Your task to perform on an android device: clear all cookies in the chrome app Image 0: 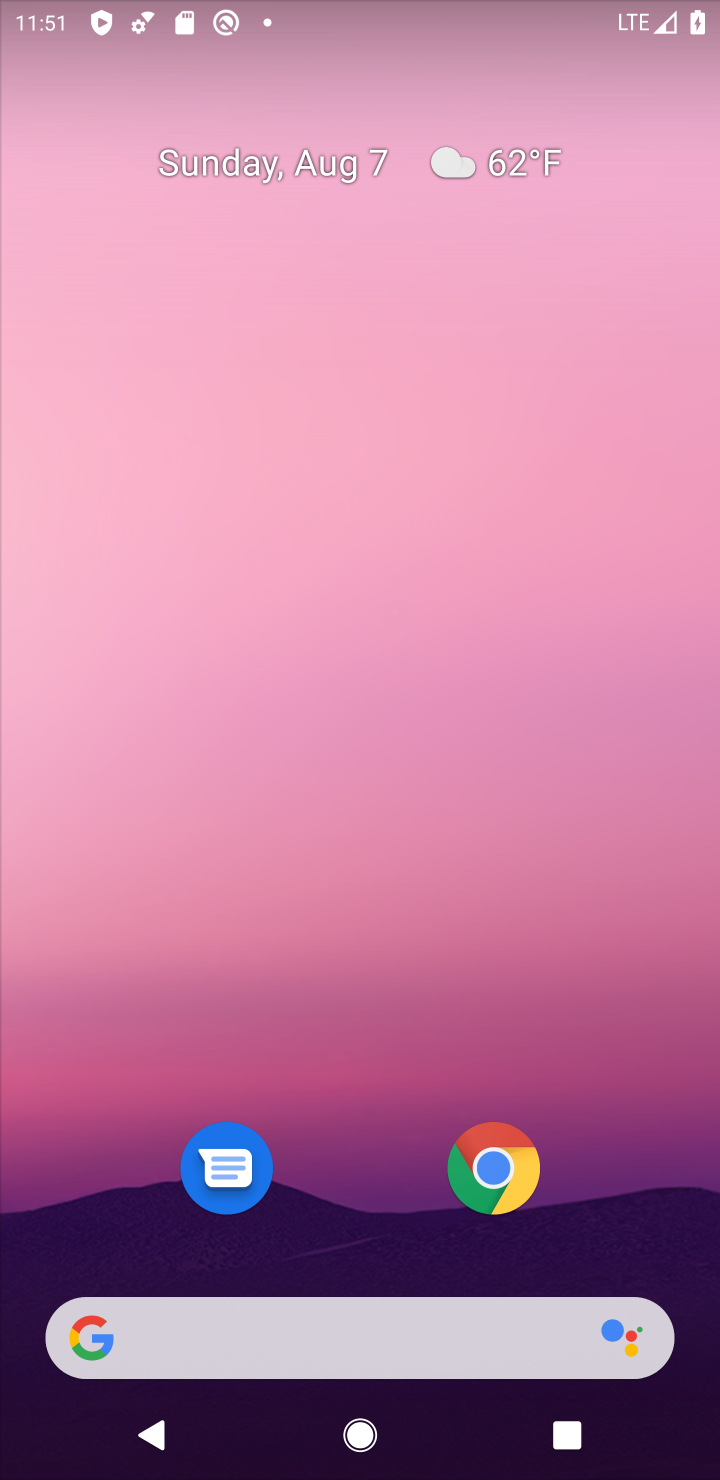
Step 0: press home button
Your task to perform on an android device: clear all cookies in the chrome app Image 1: 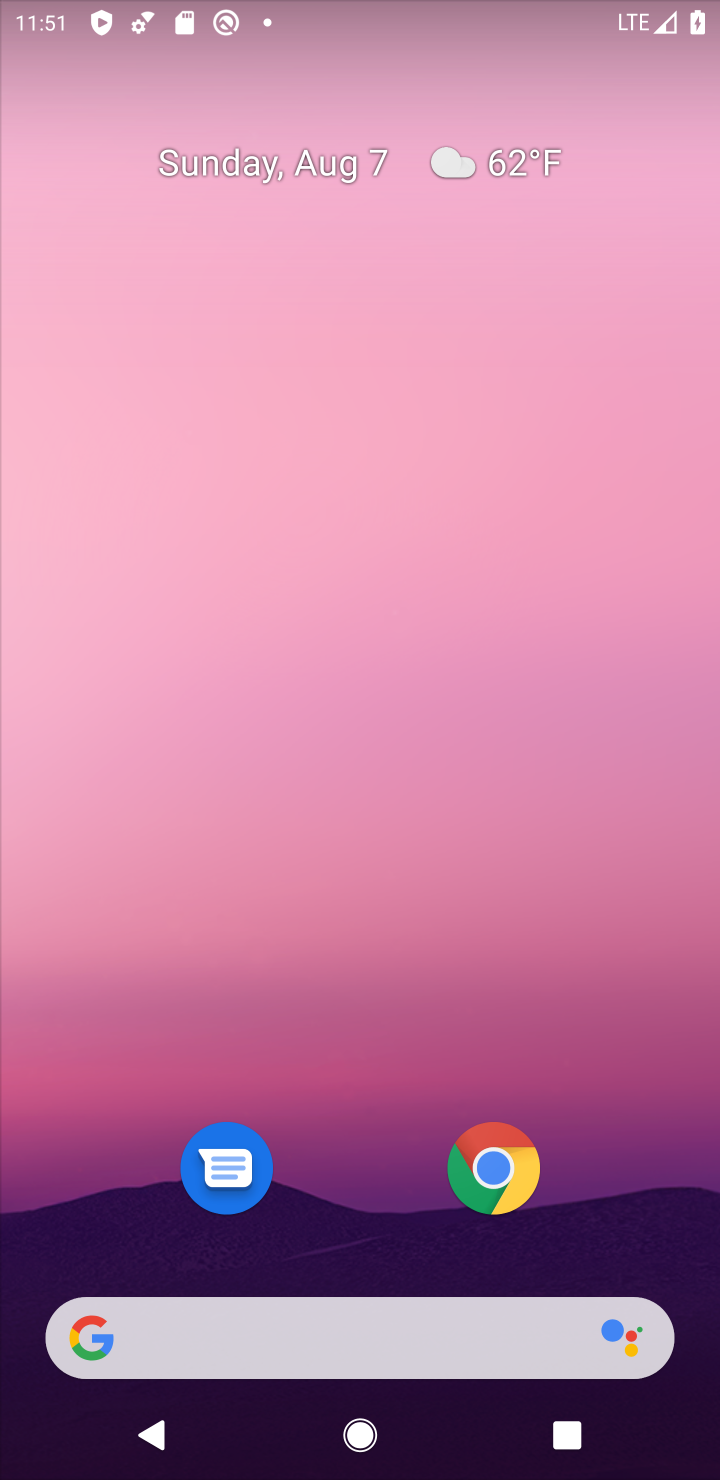
Step 1: click (473, 1180)
Your task to perform on an android device: clear all cookies in the chrome app Image 2: 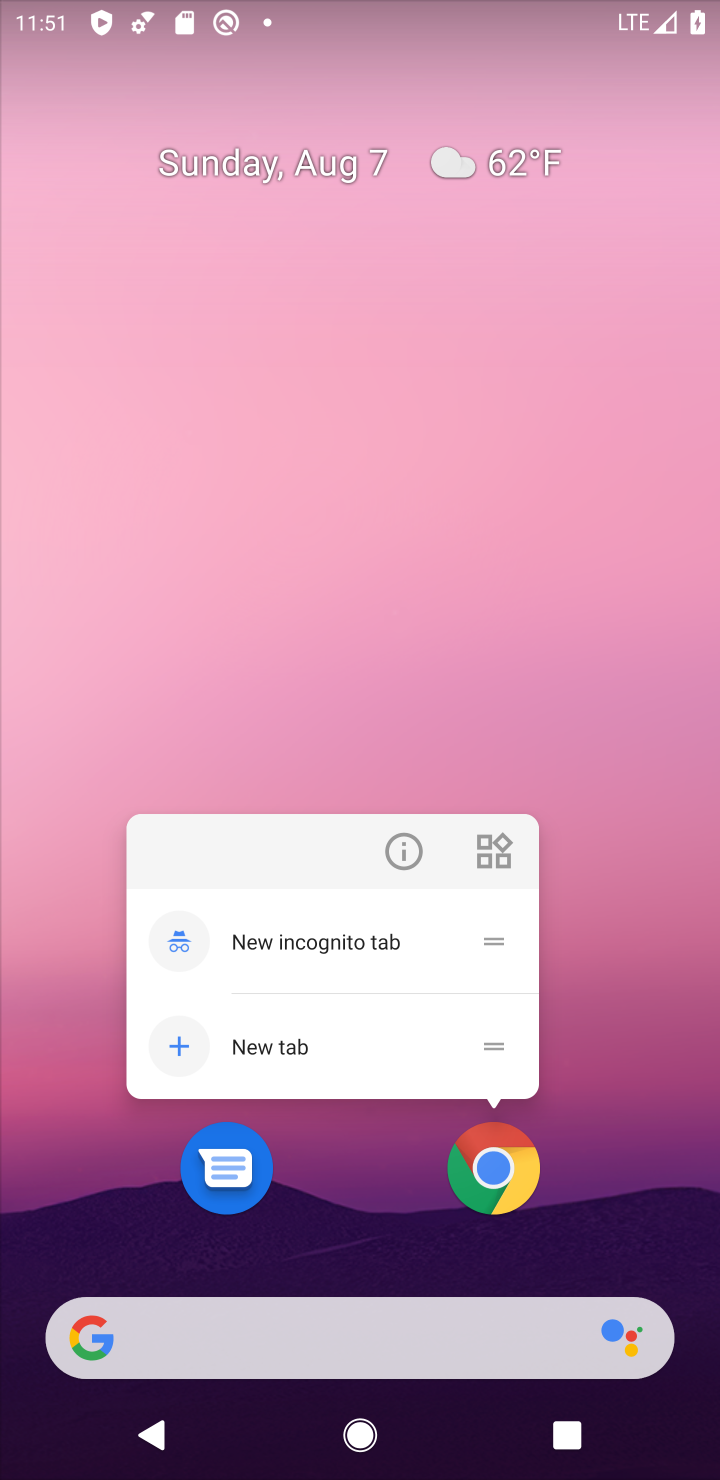
Step 2: click (473, 1180)
Your task to perform on an android device: clear all cookies in the chrome app Image 3: 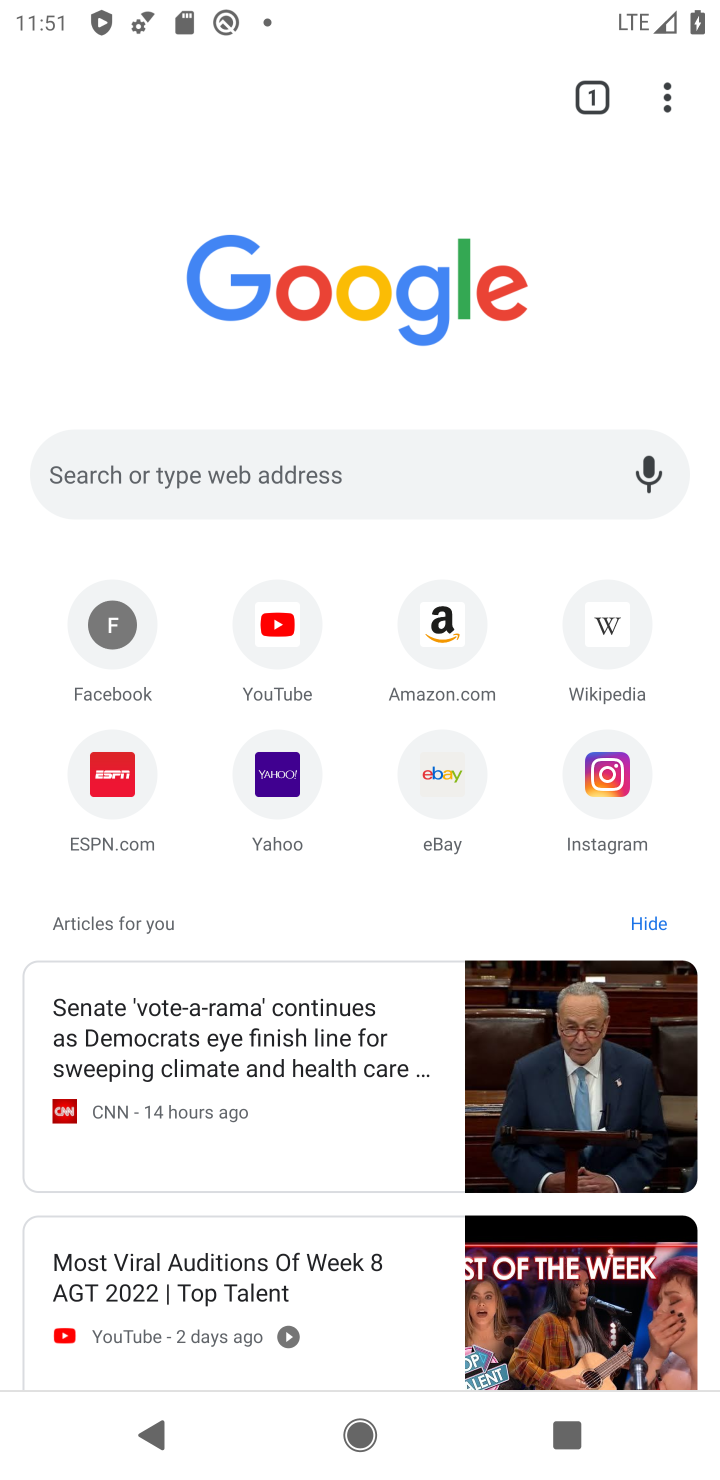
Step 3: drag from (665, 91) to (328, 933)
Your task to perform on an android device: clear all cookies in the chrome app Image 4: 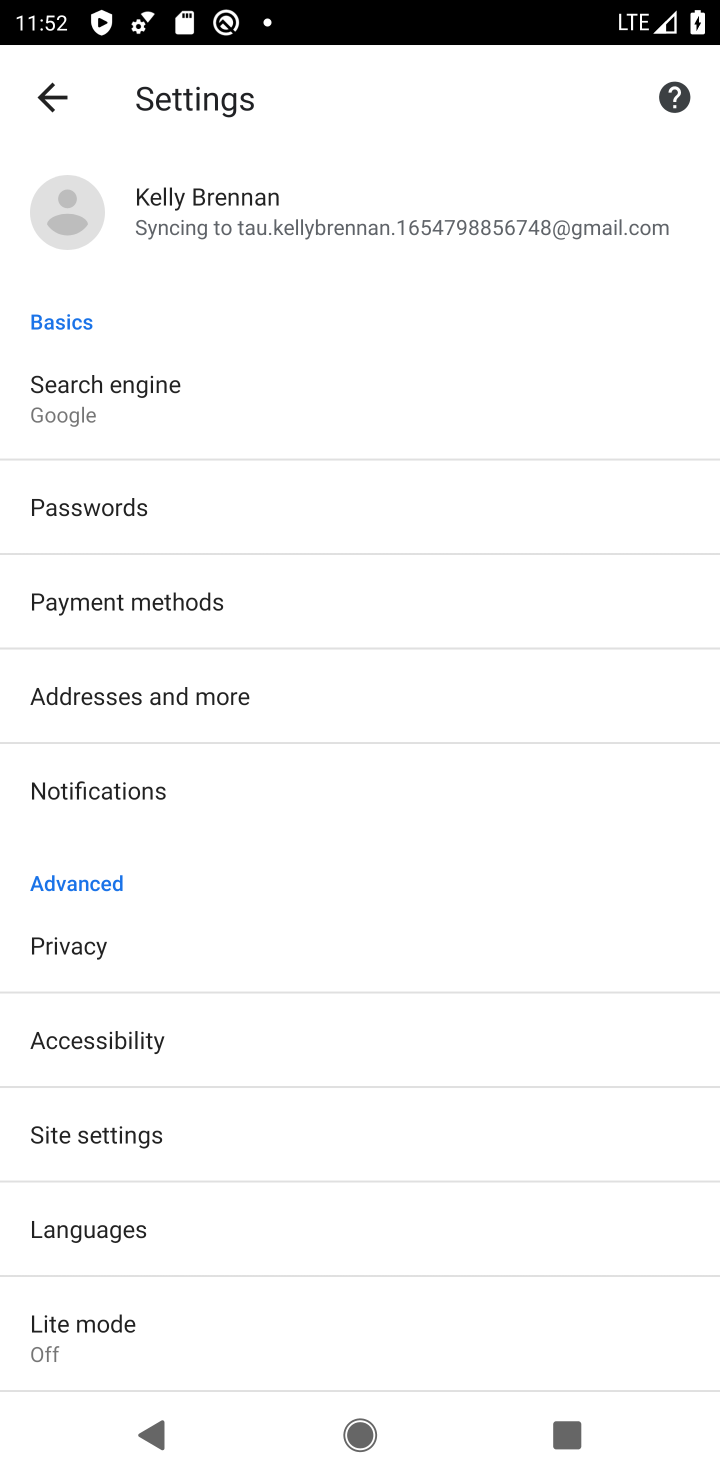
Step 4: drag from (378, 1324) to (388, 221)
Your task to perform on an android device: clear all cookies in the chrome app Image 5: 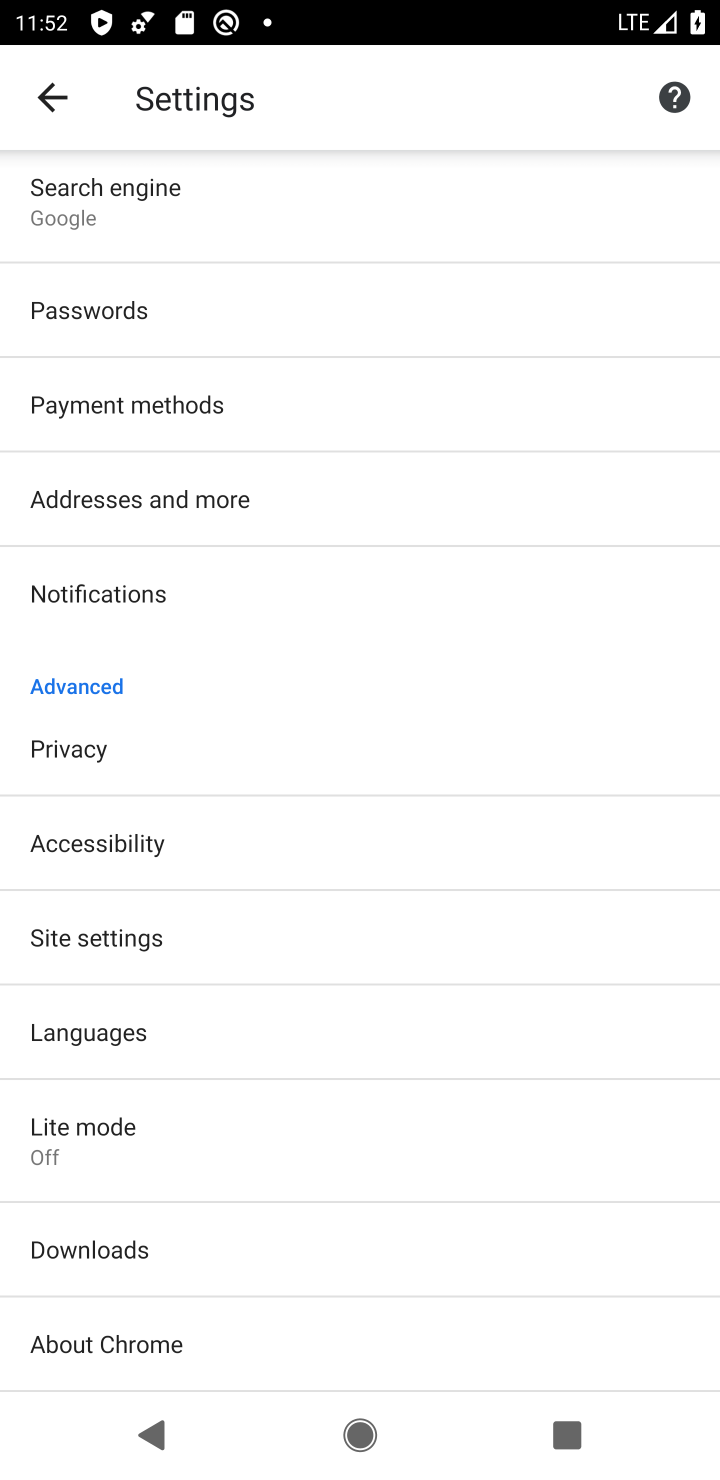
Step 5: click (71, 751)
Your task to perform on an android device: clear all cookies in the chrome app Image 6: 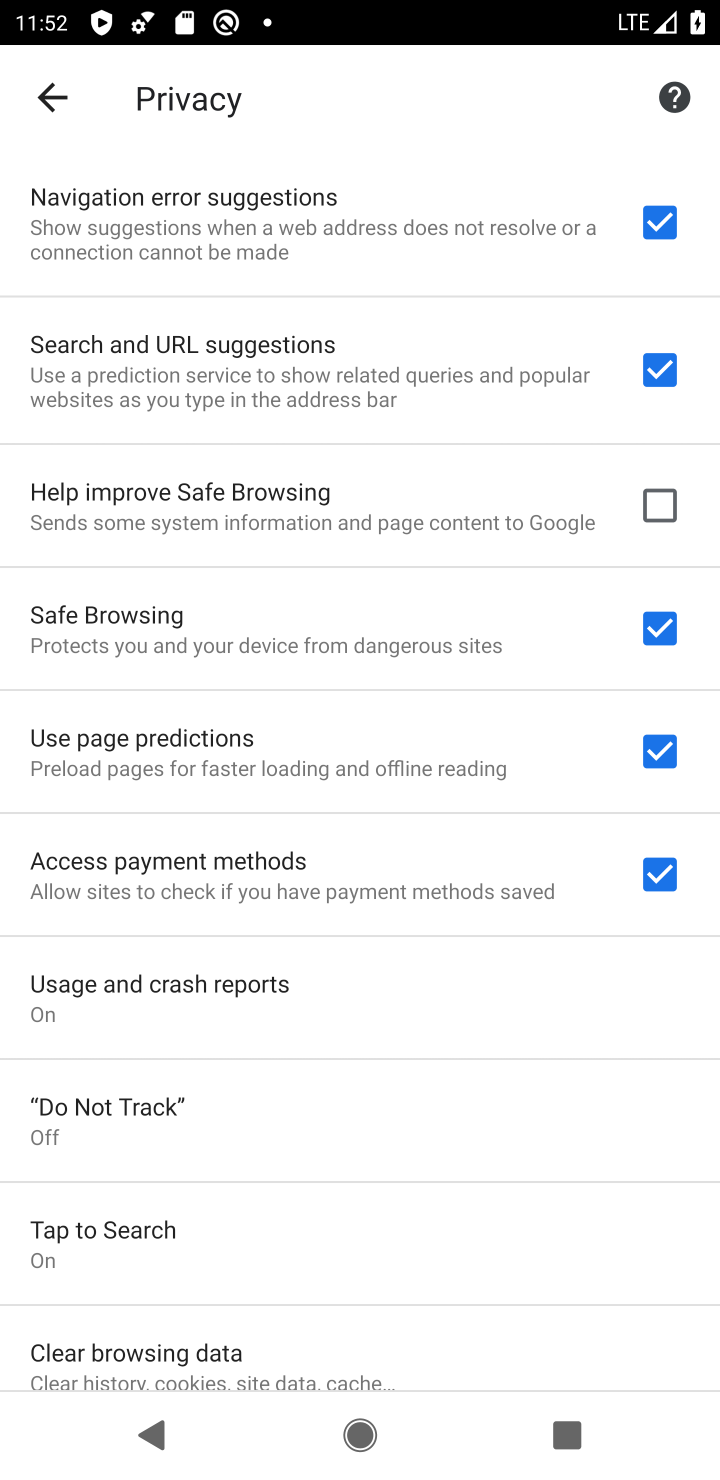
Step 6: click (153, 1361)
Your task to perform on an android device: clear all cookies in the chrome app Image 7: 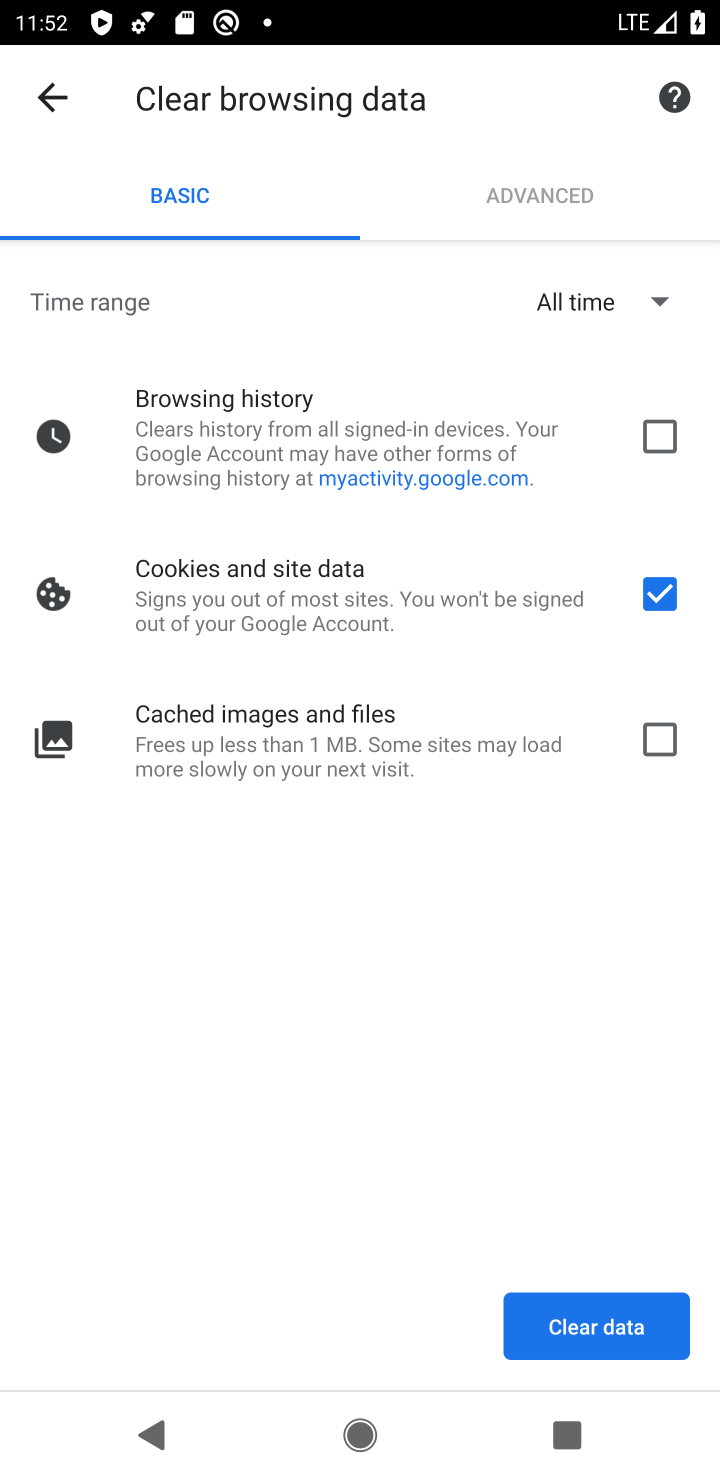
Step 7: click (532, 1317)
Your task to perform on an android device: clear all cookies in the chrome app Image 8: 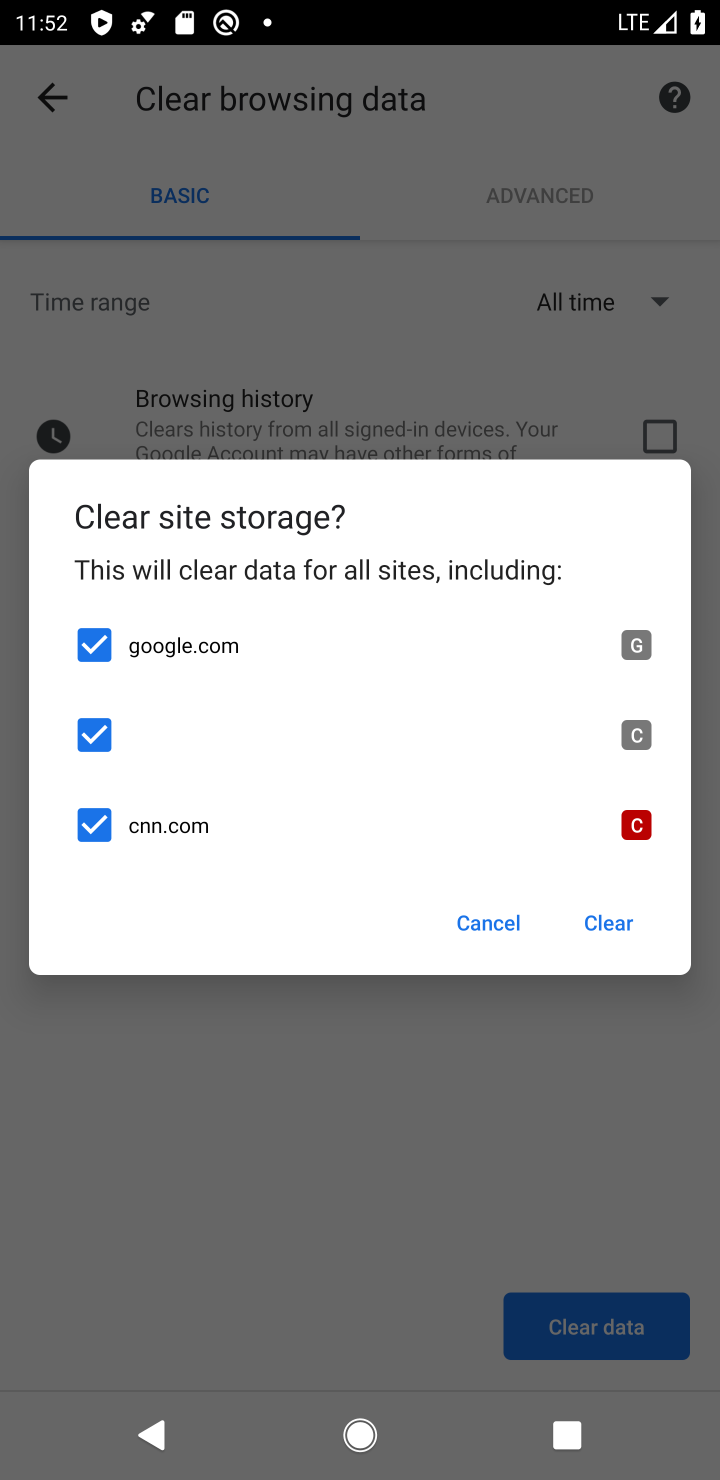
Step 8: click (615, 914)
Your task to perform on an android device: clear all cookies in the chrome app Image 9: 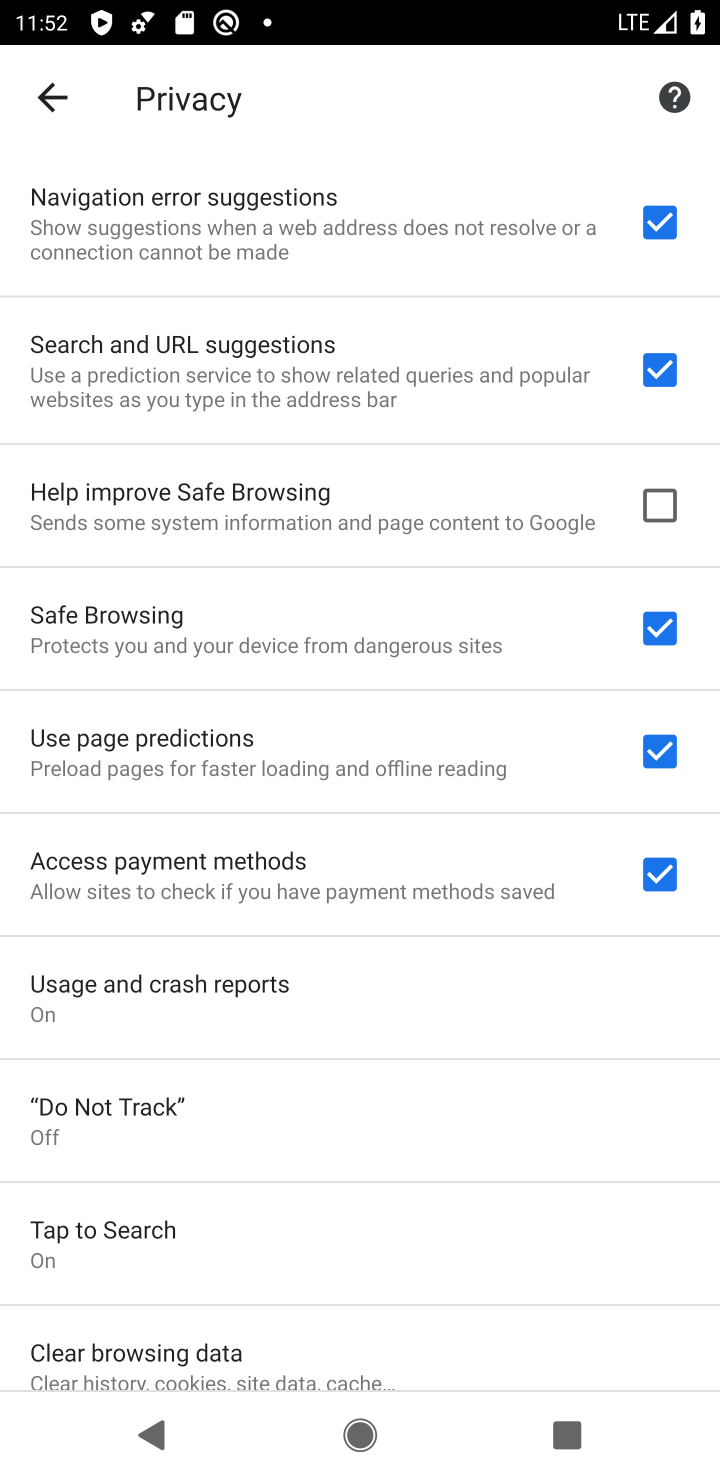
Step 9: task complete